Your task to perform on an android device: Is it going to rain tomorrow? Image 0: 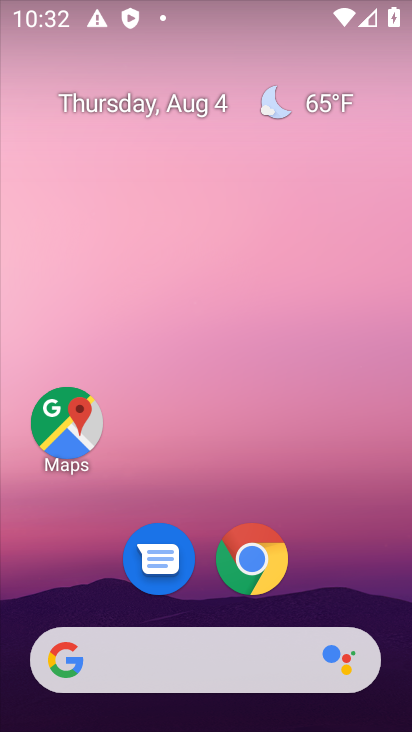
Step 0: drag from (210, 640) to (186, 22)
Your task to perform on an android device: Is it going to rain tomorrow? Image 1: 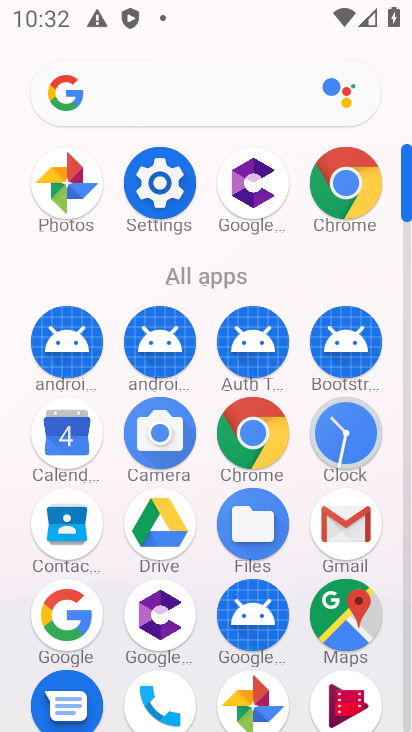
Step 1: click (256, 449)
Your task to perform on an android device: Is it going to rain tomorrow? Image 2: 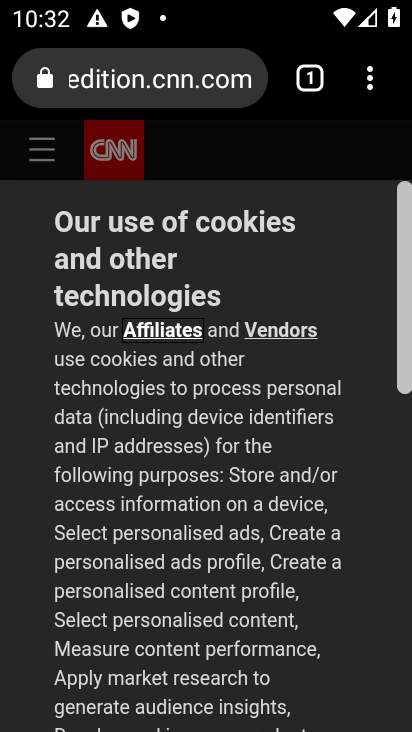
Step 2: click (170, 66)
Your task to perform on an android device: Is it going to rain tomorrow? Image 3: 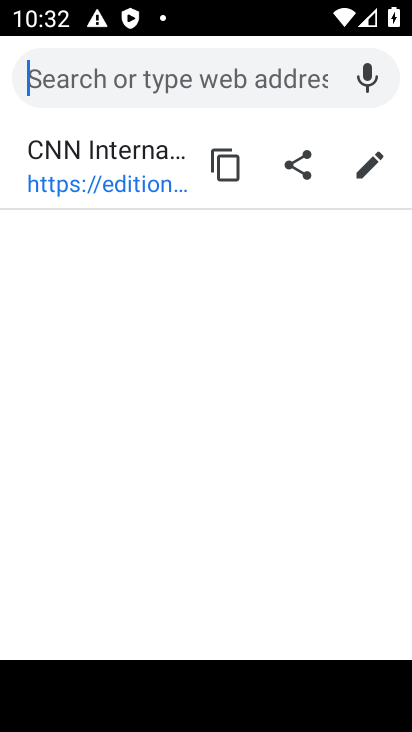
Step 3: type "weahter tomorrow"
Your task to perform on an android device: Is it going to rain tomorrow? Image 4: 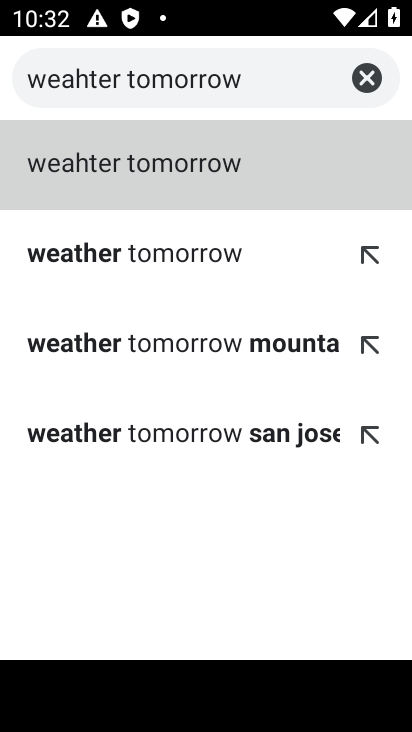
Step 4: click (129, 249)
Your task to perform on an android device: Is it going to rain tomorrow? Image 5: 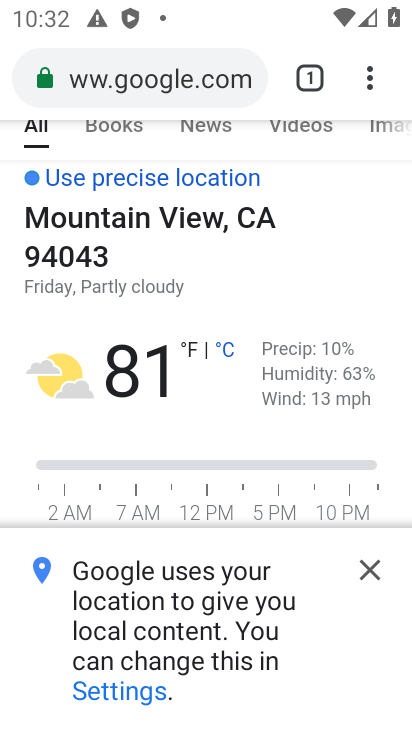
Step 5: task complete